Your task to perform on an android device: turn on the 12-hour format for clock Image 0: 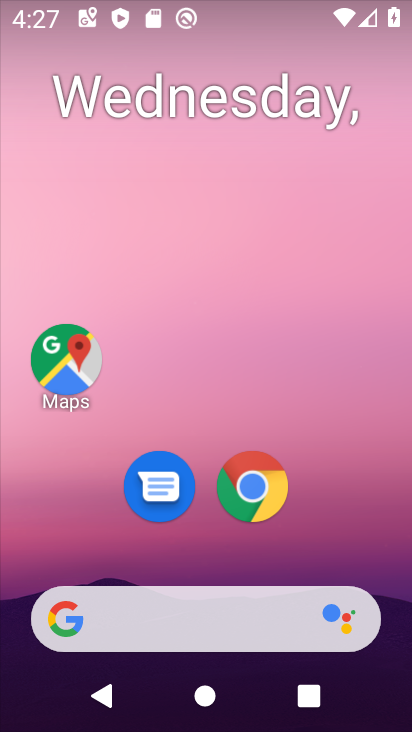
Step 0: drag from (229, 561) to (229, 66)
Your task to perform on an android device: turn on the 12-hour format for clock Image 1: 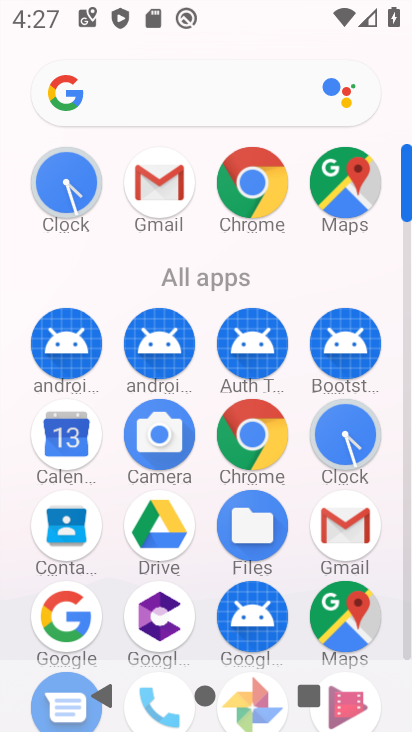
Step 1: drag from (213, 529) to (211, 272)
Your task to perform on an android device: turn on the 12-hour format for clock Image 2: 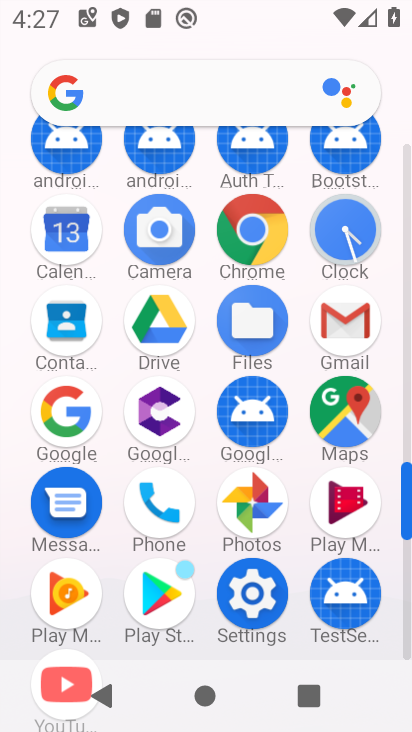
Step 2: click (339, 247)
Your task to perform on an android device: turn on the 12-hour format for clock Image 3: 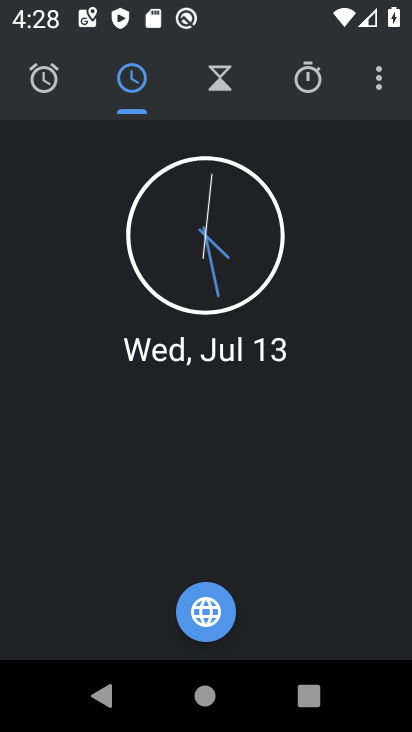
Step 3: click (393, 81)
Your task to perform on an android device: turn on the 12-hour format for clock Image 4: 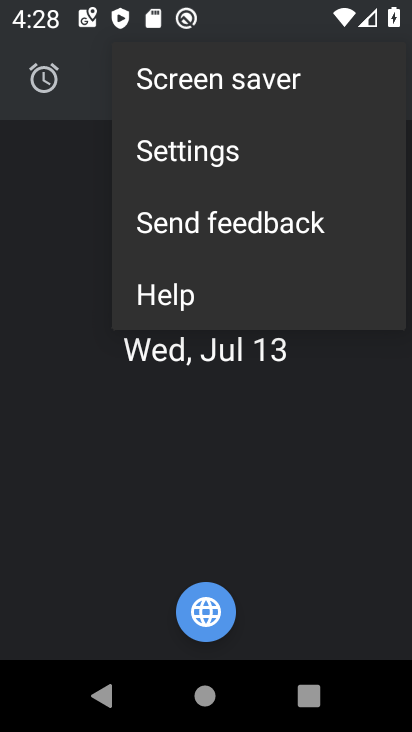
Step 4: click (211, 159)
Your task to perform on an android device: turn on the 12-hour format for clock Image 5: 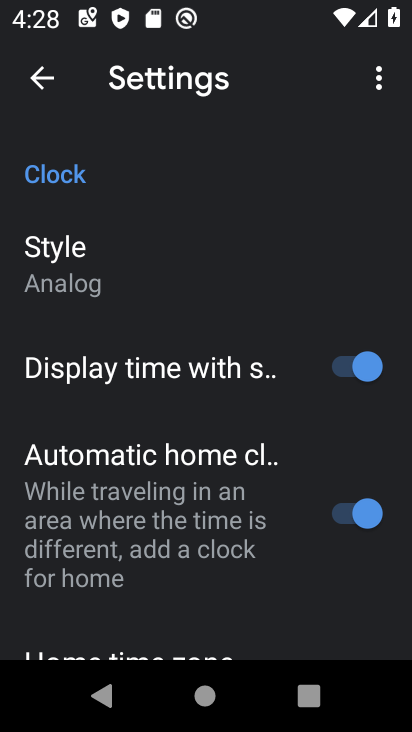
Step 5: drag from (152, 487) to (155, 179)
Your task to perform on an android device: turn on the 12-hour format for clock Image 6: 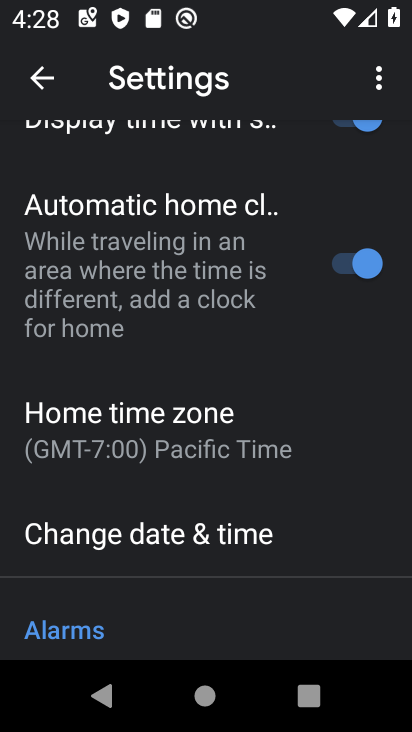
Step 6: click (136, 539)
Your task to perform on an android device: turn on the 12-hour format for clock Image 7: 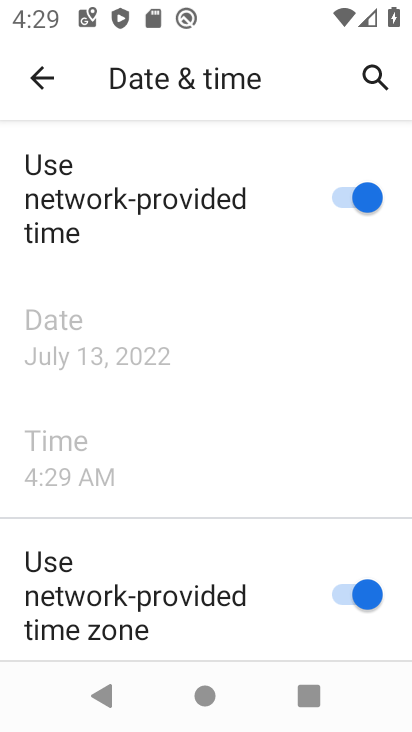
Step 7: task complete